Your task to perform on an android device: check the backup settings in the google photos Image 0: 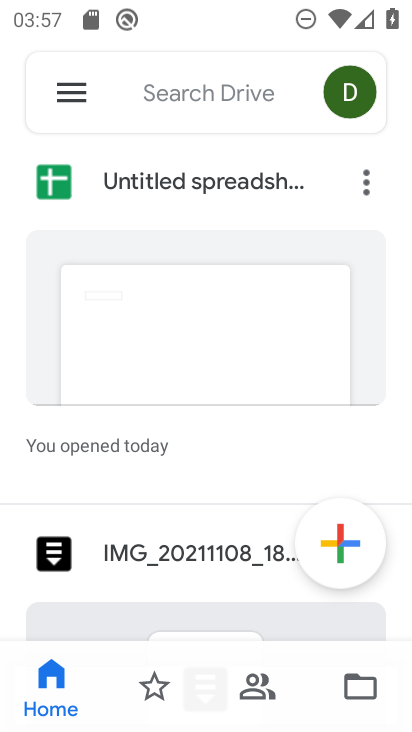
Step 0: press home button
Your task to perform on an android device: check the backup settings in the google photos Image 1: 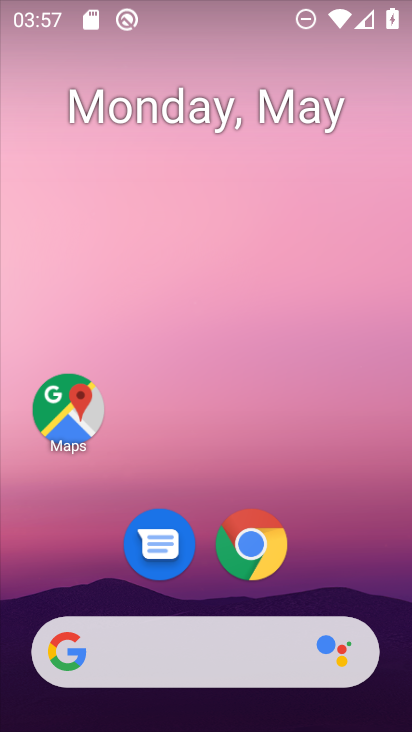
Step 1: drag from (366, 566) to (368, 182)
Your task to perform on an android device: check the backup settings in the google photos Image 2: 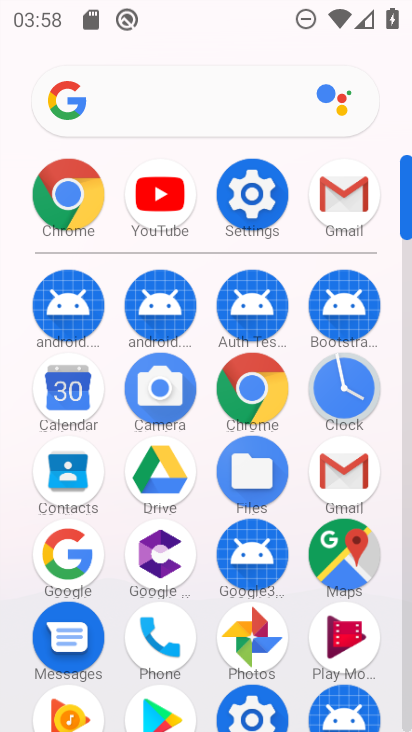
Step 2: click (267, 636)
Your task to perform on an android device: check the backup settings in the google photos Image 3: 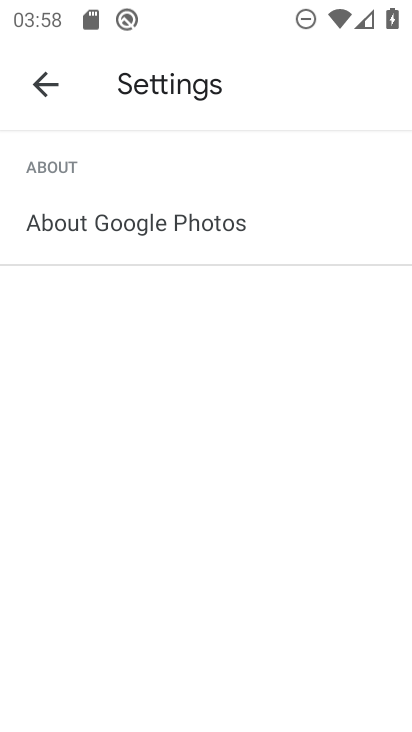
Step 3: click (60, 102)
Your task to perform on an android device: check the backup settings in the google photos Image 4: 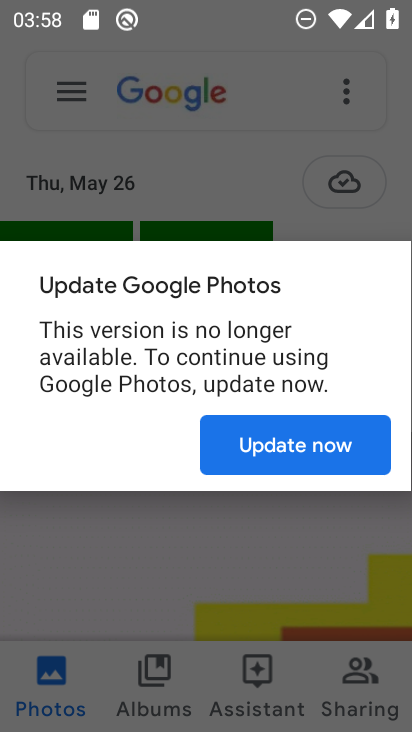
Step 4: click (261, 456)
Your task to perform on an android device: check the backup settings in the google photos Image 5: 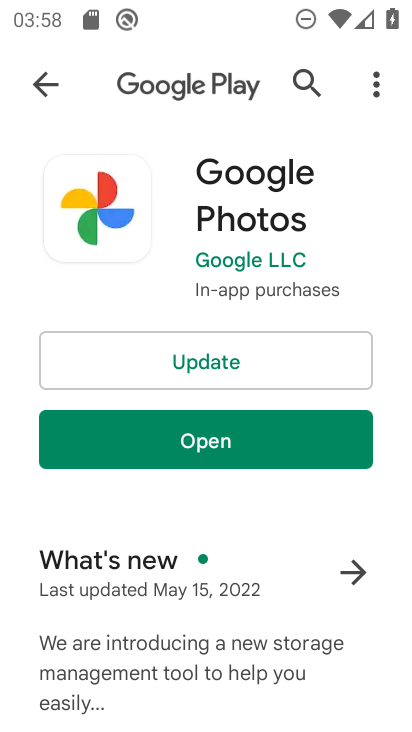
Step 5: click (290, 367)
Your task to perform on an android device: check the backup settings in the google photos Image 6: 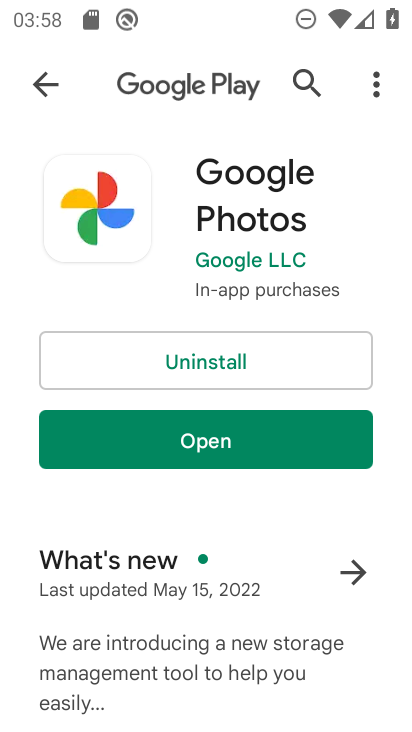
Step 6: click (287, 455)
Your task to perform on an android device: check the backup settings in the google photos Image 7: 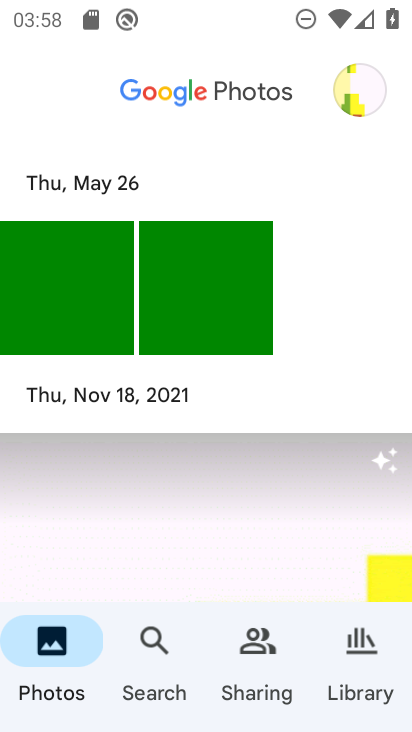
Step 7: click (370, 100)
Your task to perform on an android device: check the backup settings in the google photos Image 8: 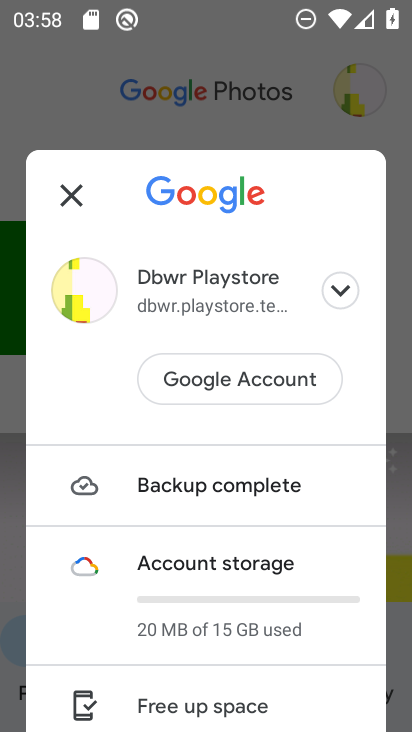
Step 8: drag from (347, 603) to (340, 356)
Your task to perform on an android device: check the backup settings in the google photos Image 9: 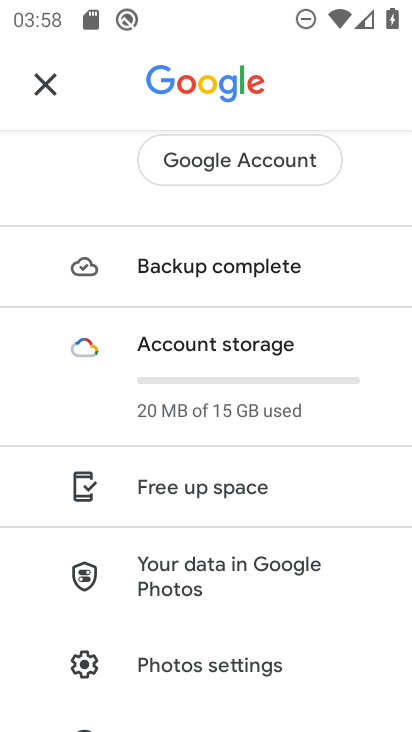
Step 9: drag from (339, 629) to (334, 467)
Your task to perform on an android device: check the backup settings in the google photos Image 10: 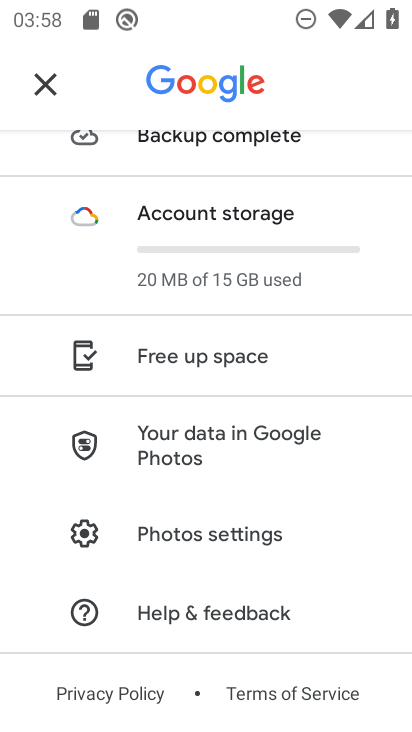
Step 10: click (276, 546)
Your task to perform on an android device: check the backup settings in the google photos Image 11: 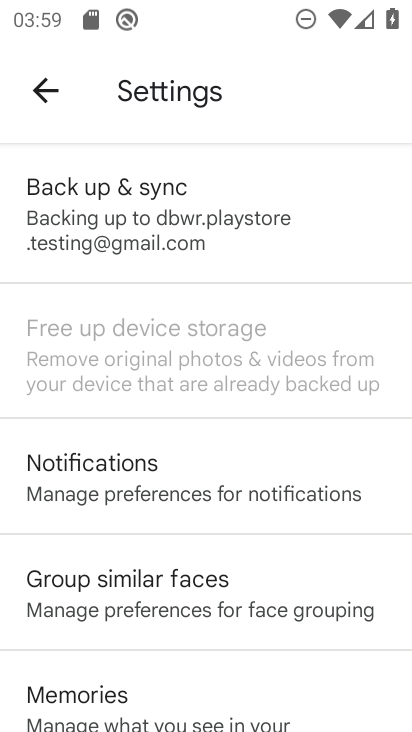
Step 11: click (235, 220)
Your task to perform on an android device: check the backup settings in the google photos Image 12: 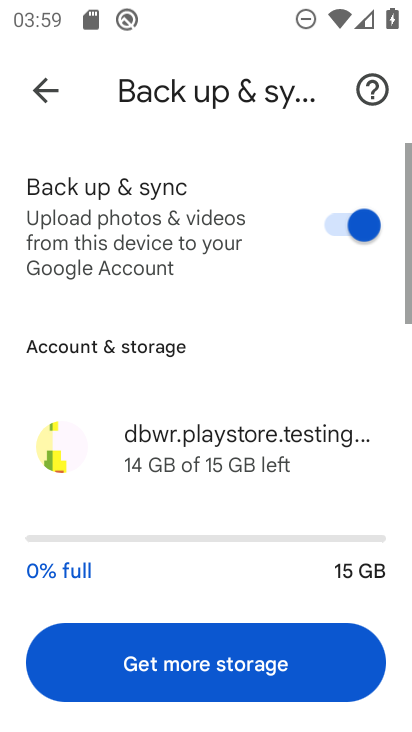
Step 12: task complete